Your task to perform on an android device: Open Google Maps and go to "Timeline" Image 0: 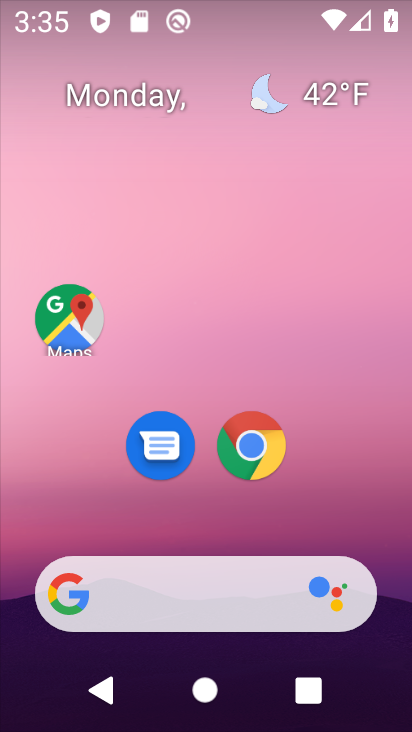
Step 0: drag from (2, 494) to (218, 46)
Your task to perform on an android device: Open Google Maps and go to "Timeline" Image 1: 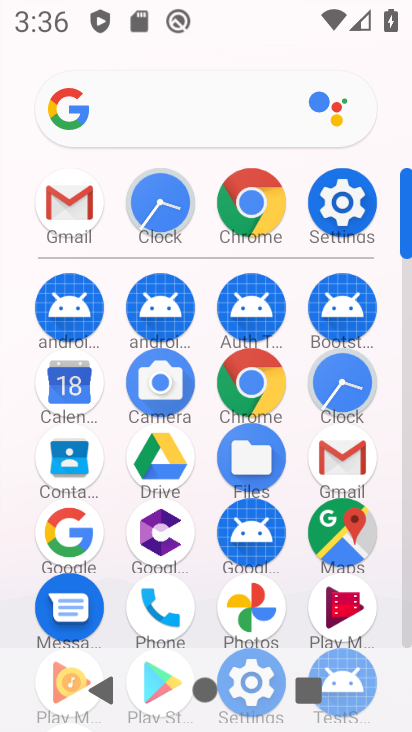
Step 1: click (357, 525)
Your task to perform on an android device: Open Google Maps and go to "Timeline" Image 2: 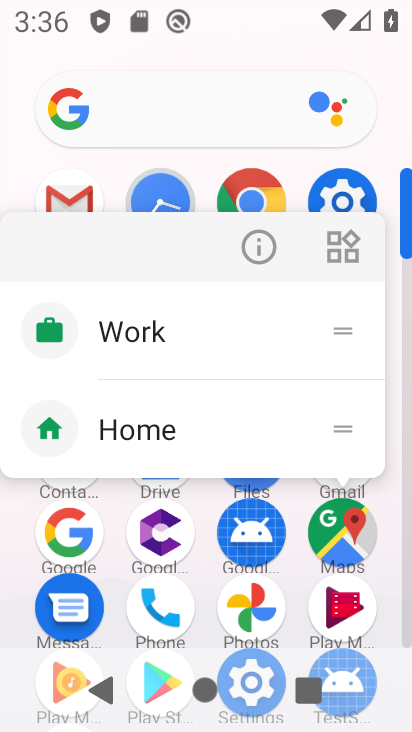
Step 2: click (354, 555)
Your task to perform on an android device: Open Google Maps and go to "Timeline" Image 3: 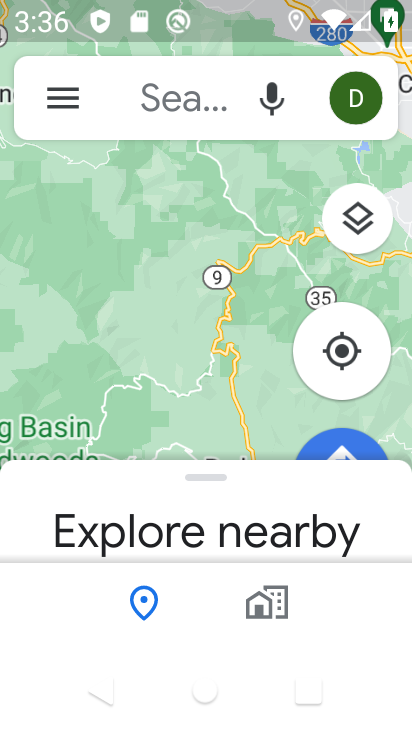
Step 3: click (53, 87)
Your task to perform on an android device: Open Google Maps and go to "Timeline" Image 4: 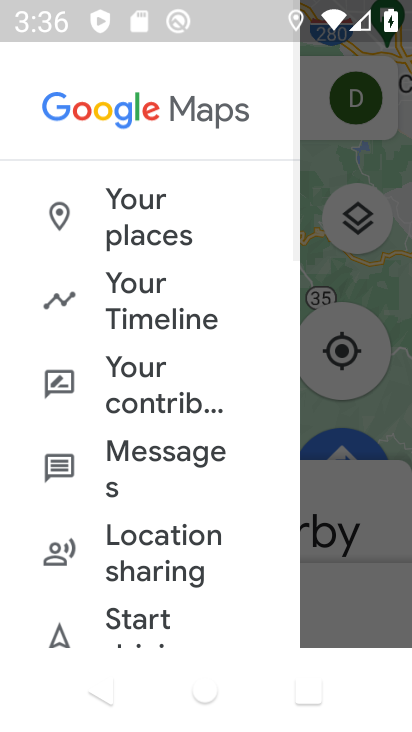
Step 4: click (140, 321)
Your task to perform on an android device: Open Google Maps and go to "Timeline" Image 5: 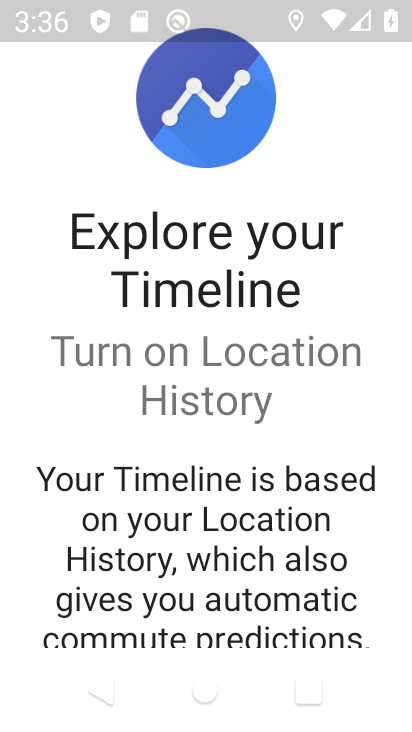
Step 5: task complete